Your task to perform on an android device: Go to internet settings Image 0: 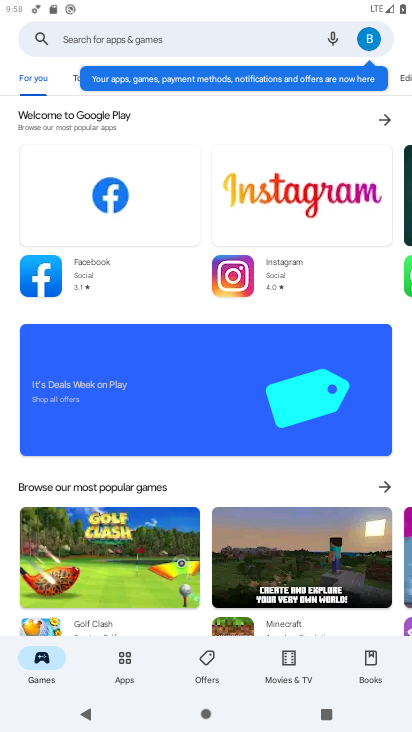
Step 0: press home button
Your task to perform on an android device: Go to internet settings Image 1: 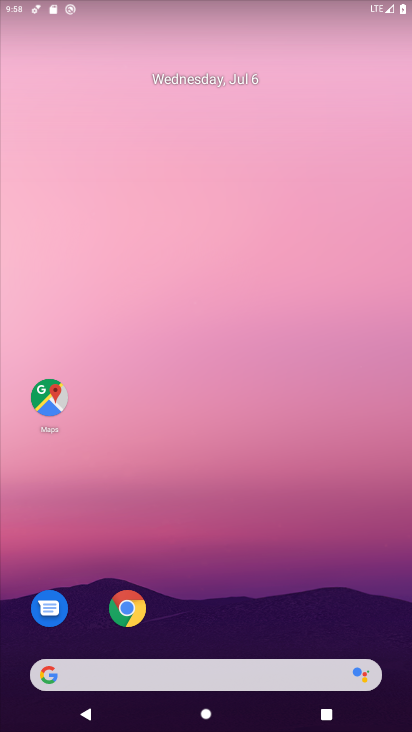
Step 1: drag from (258, 463) to (272, 4)
Your task to perform on an android device: Go to internet settings Image 2: 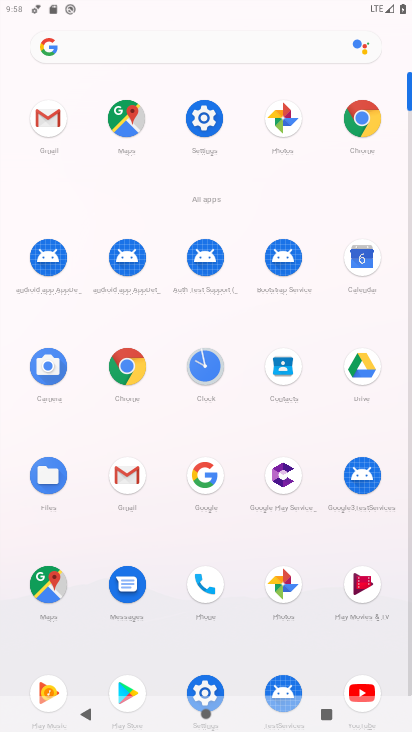
Step 2: click (205, 133)
Your task to perform on an android device: Go to internet settings Image 3: 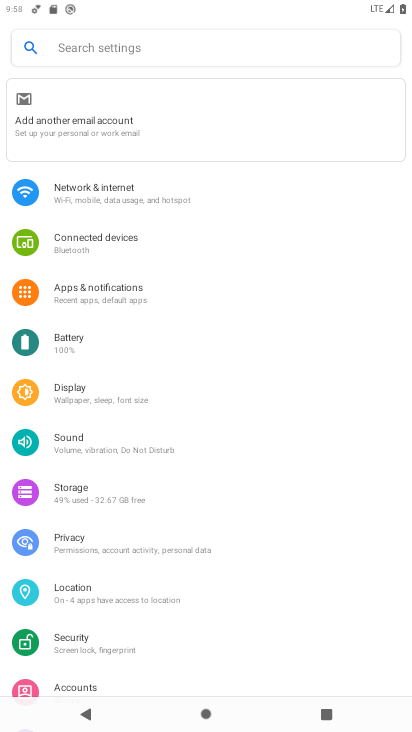
Step 3: click (108, 198)
Your task to perform on an android device: Go to internet settings Image 4: 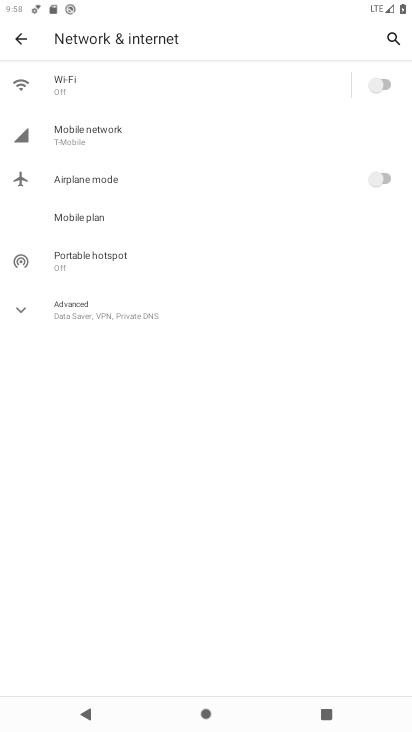
Step 4: task complete